Your task to perform on an android device: What's on my calendar today? Image 0: 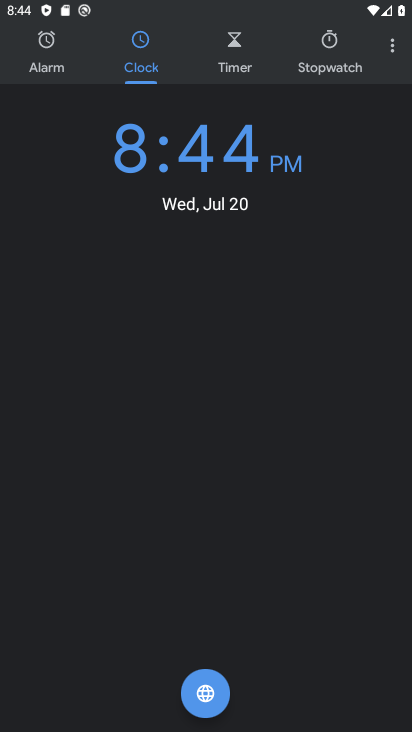
Step 0: press home button
Your task to perform on an android device: What's on my calendar today? Image 1: 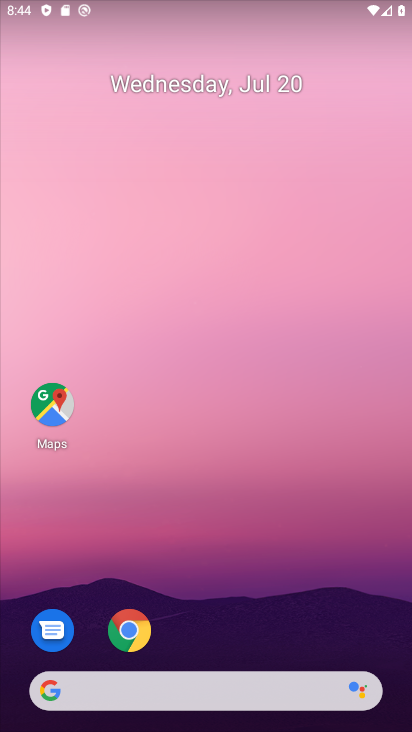
Step 1: drag from (179, 681) to (175, 6)
Your task to perform on an android device: What's on my calendar today? Image 2: 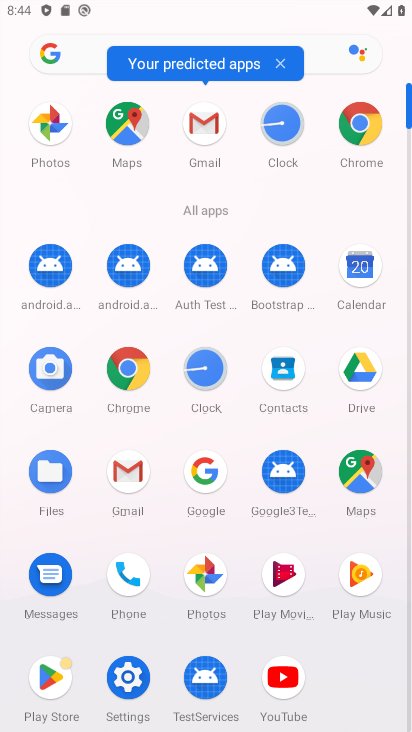
Step 2: click (359, 273)
Your task to perform on an android device: What's on my calendar today? Image 3: 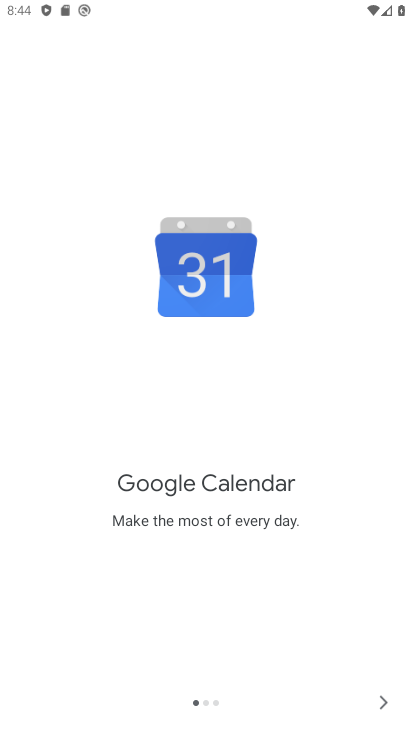
Step 3: click (388, 712)
Your task to perform on an android device: What's on my calendar today? Image 4: 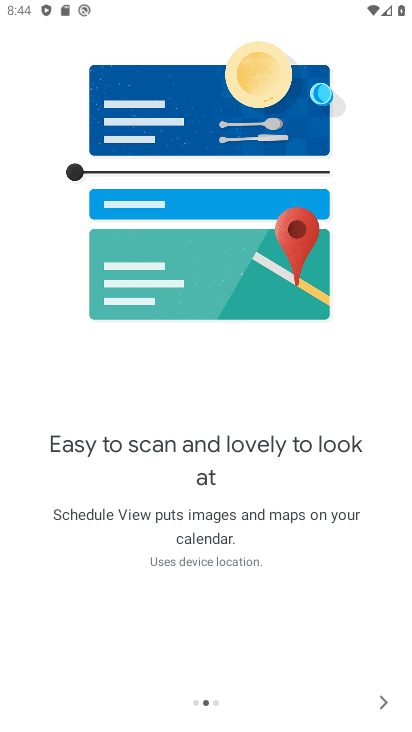
Step 4: click (388, 712)
Your task to perform on an android device: What's on my calendar today? Image 5: 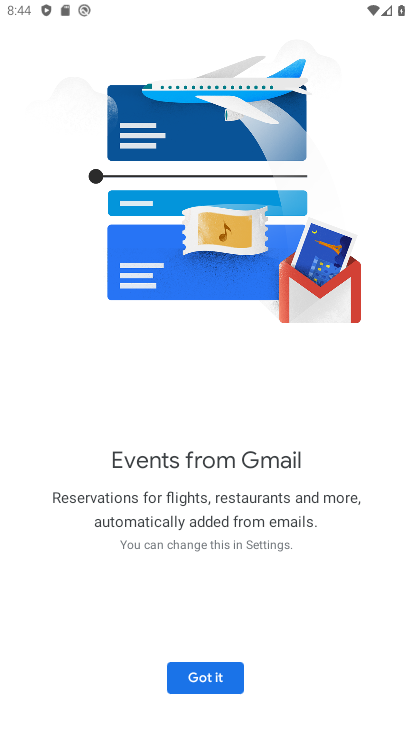
Step 5: click (179, 670)
Your task to perform on an android device: What's on my calendar today? Image 6: 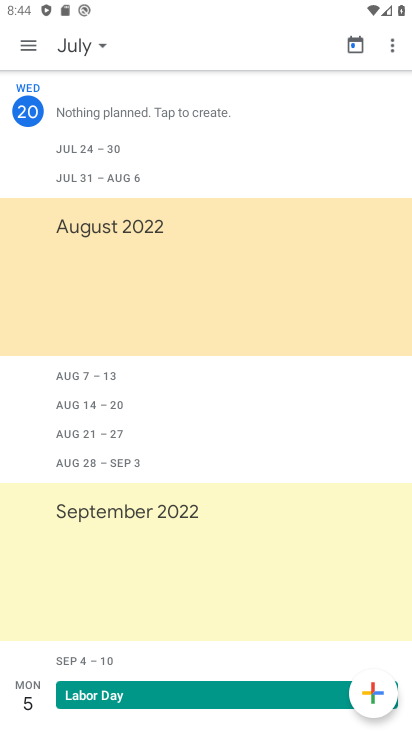
Step 6: task complete